Your task to perform on an android device: Go to sound settings Image 0: 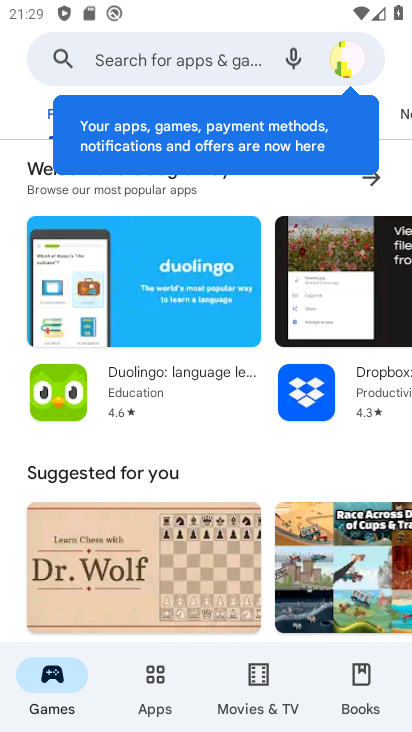
Step 0: press home button
Your task to perform on an android device: Go to sound settings Image 1: 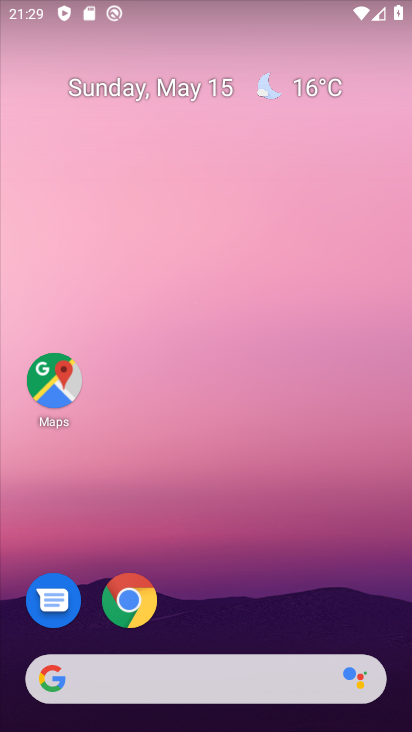
Step 1: drag from (231, 594) to (184, 269)
Your task to perform on an android device: Go to sound settings Image 2: 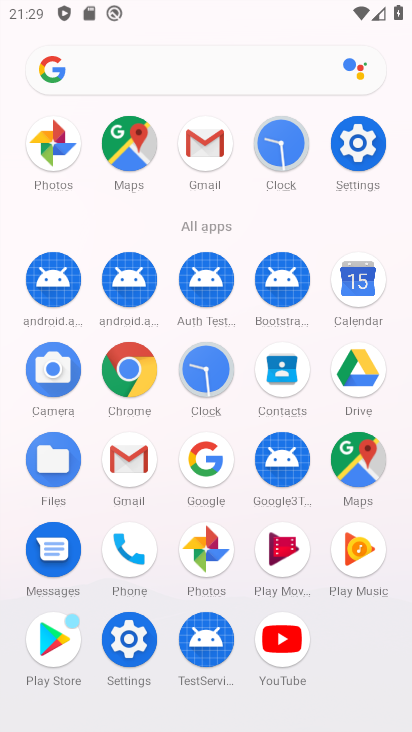
Step 2: click (131, 636)
Your task to perform on an android device: Go to sound settings Image 3: 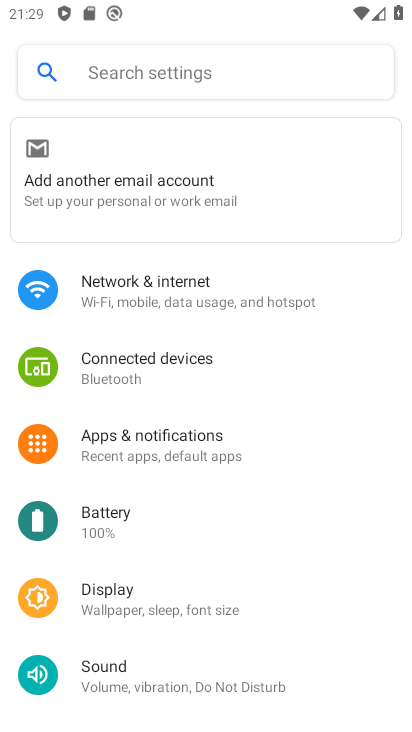
Step 3: click (131, 636)
Your task to perform on an android device: Go to sound settings Image 4: 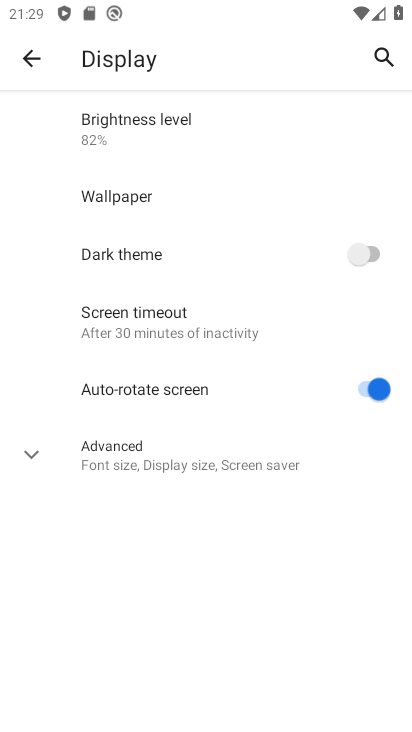
Step 4: click (39, 58)
Your task to perform on an android device: Go to sound settings Image 5: 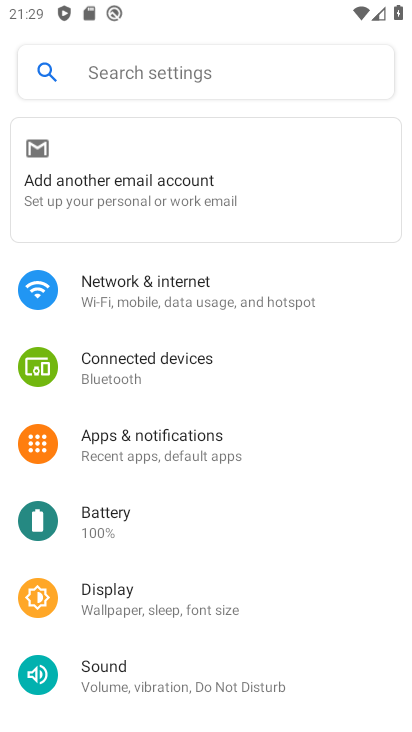
Step 5: click (207, 679)
Your task to perform on an android device: Go to sound settings Image 6: 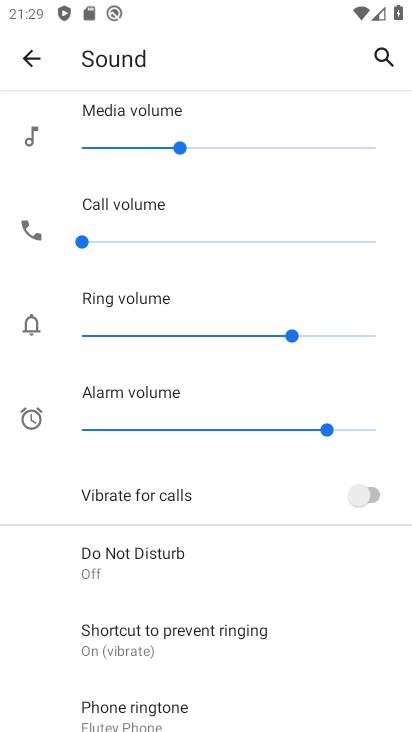
Step 6: task complete